Your task to perform on an android device: turn off notifications in google photos Image 0: 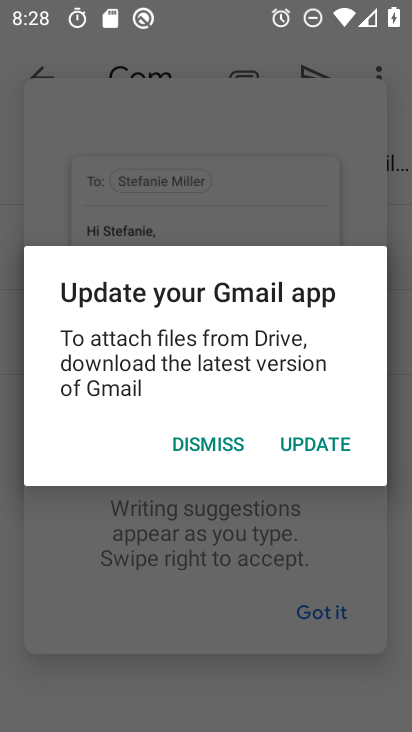
Step 0: press home button
Your task to perform on an android device: turn off notifications in google photos Image 1: 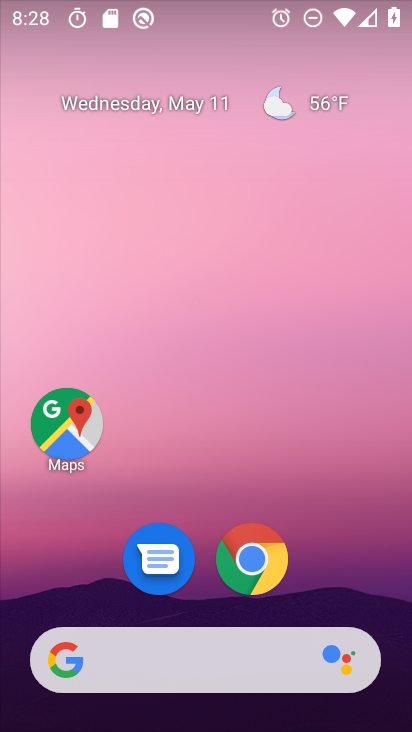
Step 1: drag from (346, 588) to (354, 14)
Your task to perform on an android device: turn off notifications in google photos Image 2: 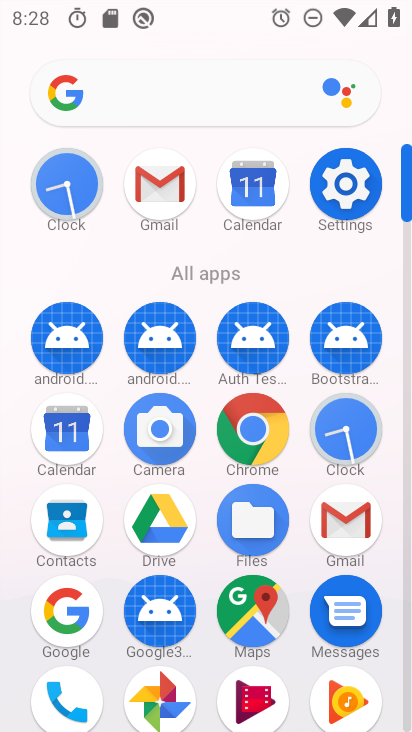
Step 2: click (158, 711)
Your task to perform on an android device: turn off notifications in google photos Image 3: 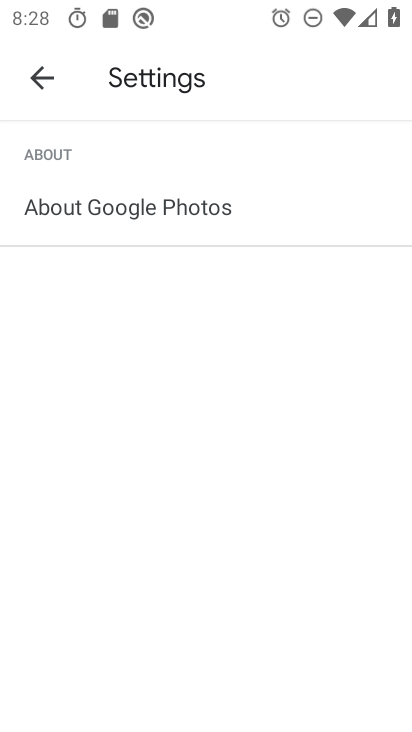
Step 3: click (33, 72)
Your task to perform on an android device: turn off notifications in google photos Image 4: 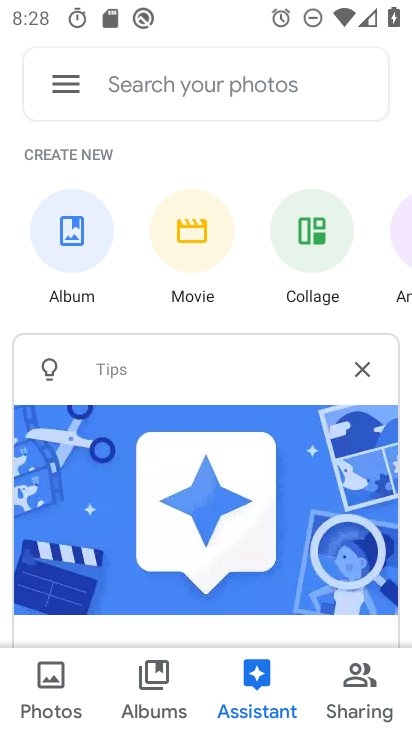
Step 4: click (63, 84)
Your task to perform on an android device: turn off notifications in google photos Image 5: 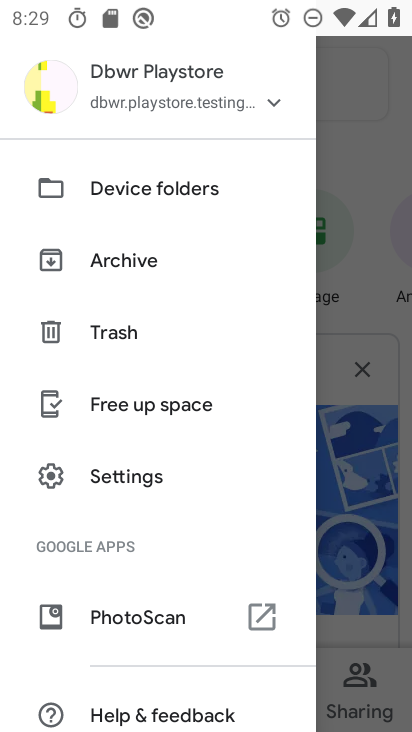
Step 5: click (118, 470)
Your task to perform on an android device: turn off notifications in google photos Image 6: 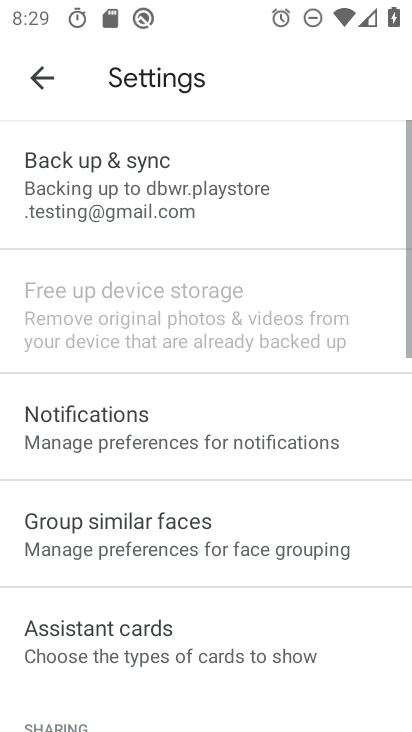
Step 6: click (118, 470)
Your task to perform on an android device: turn off notifications in google photos Image 7: 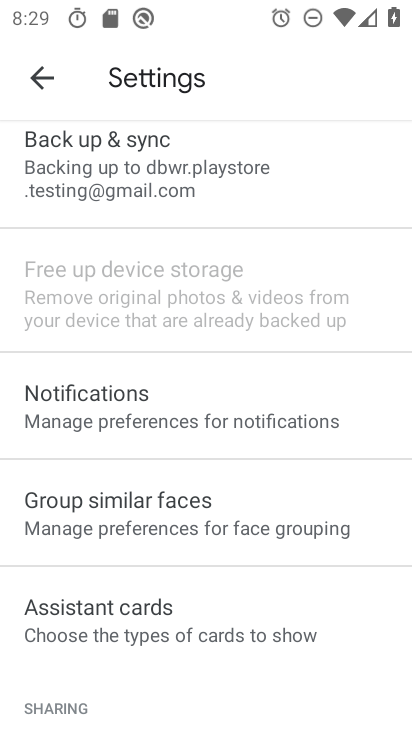
Step 7: click (125, 410)
Your task to perform on an android device: turn off notifications in google photos Image 8: 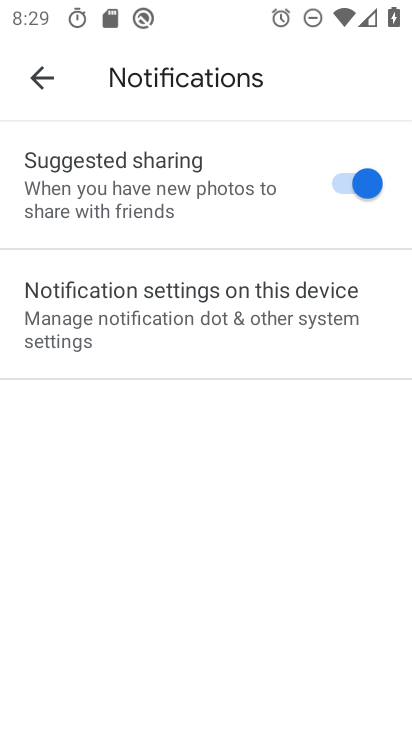
Step 8: click (302, 300)
Your task to perform on an android device: turn off notifications in google photos Image 9: 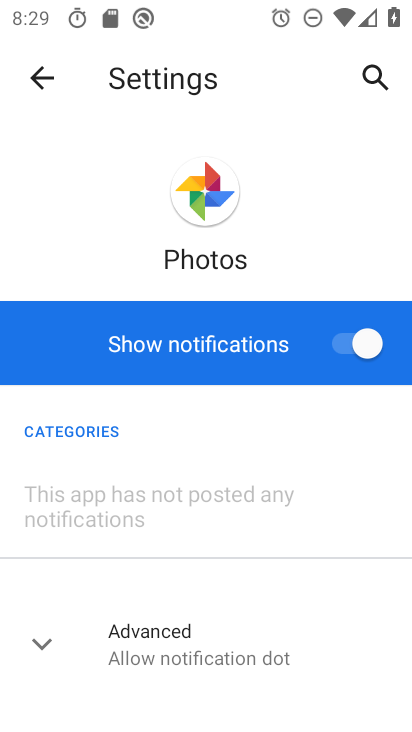
Step 9: click (370, 337)
Your task to perform on an android device: turn off notifications in google photos Image 10: 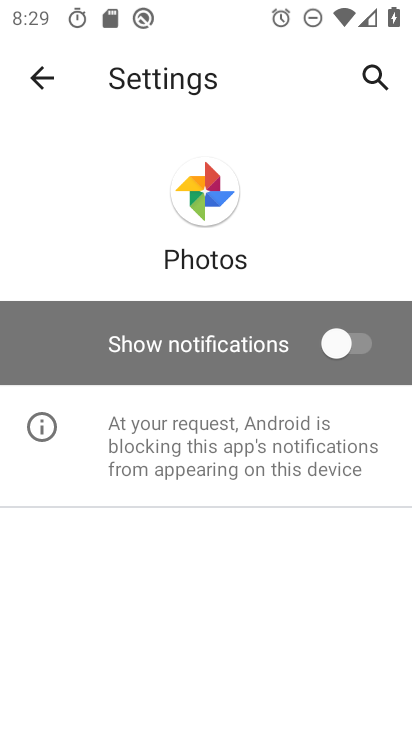
Step 10: task complete